Your task to perform on an android device: Go to ESPN.com Image 0: 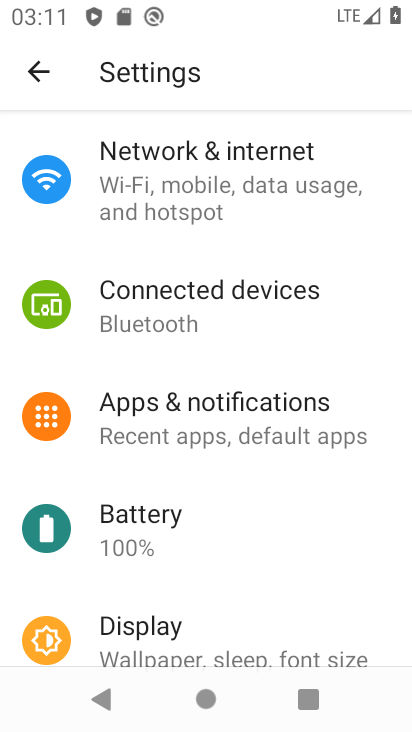
Step 0: press home button
Your task to perform on an android device: Go to ESPN.com Image 1: 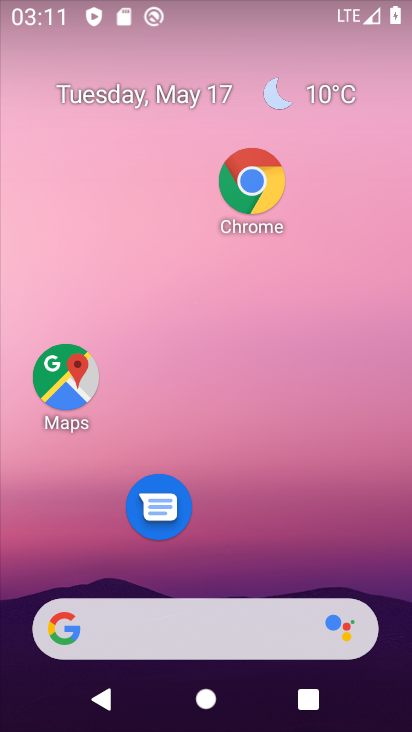
Step 1: click (225, 616)
Your task to perform on an android device: Go to ESPN.com Image 2: 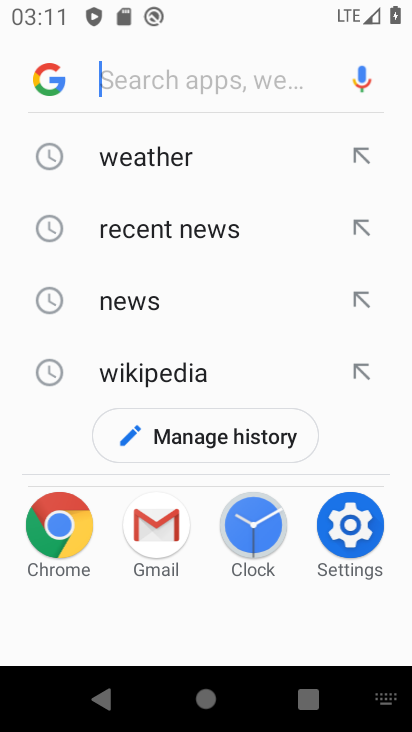
Step 2: type "espn"
Your task to perform on an android device: Go to ESPN.com Image 3: 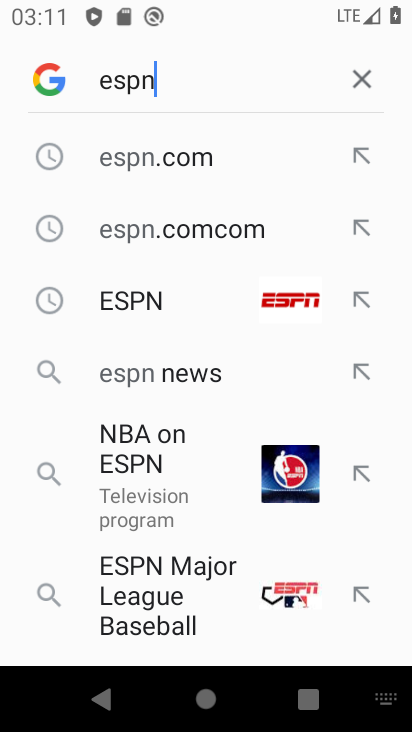
Step 3: click (193, 182)
Your task to perform on an android device: Go to ESPN.com Image 4: 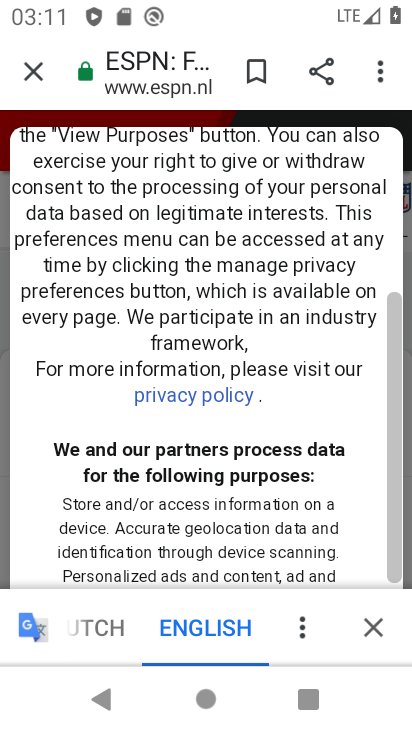
Step 4: task complete